Your task to perform on an android device: Find coffee shops on Maps Image 0: 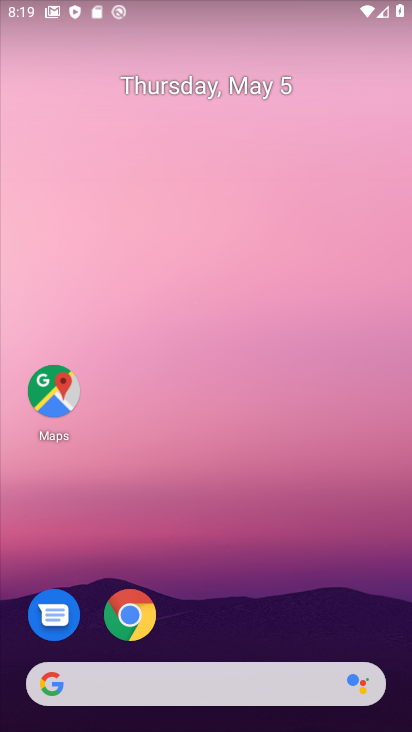
Step 0: click (61, 386)
Your task to perform on an android device: Find coffee shops on Maps Image 1: 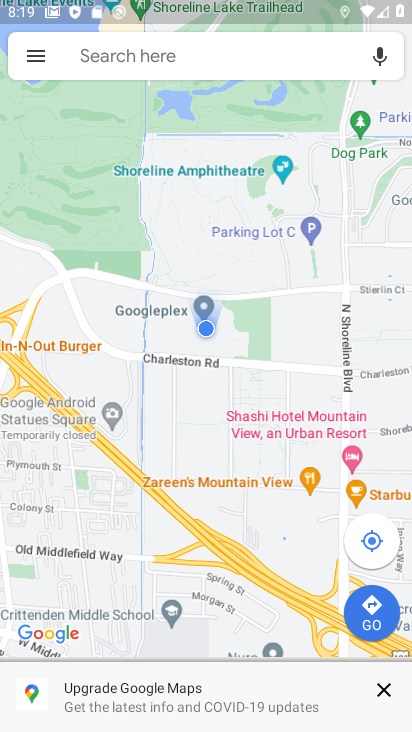
Step 1: click (170, 57)
Your task to perform on an android device: Find coffee shops on Maps Image 2: 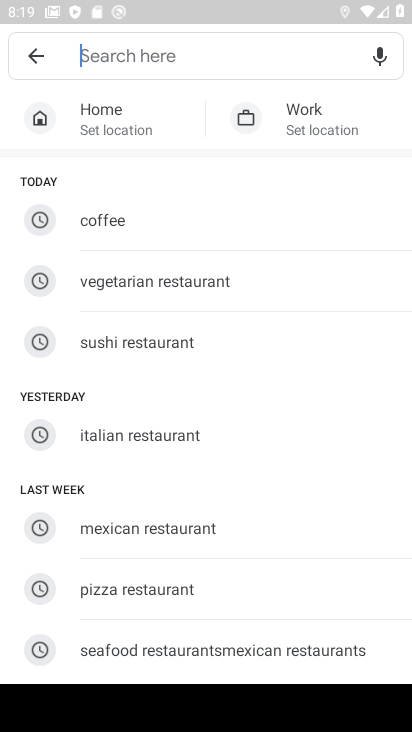
Step 2: type "coffee shops"
Your task to perform on an android device: Find coffee shops on Maps Image 3: 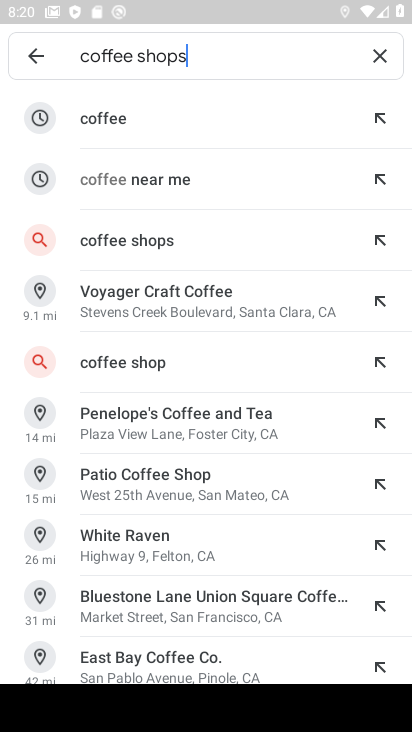
Step 3: click (201, 235)
Your task to perform on an android device: Find coffee shops on Maps Image 4: 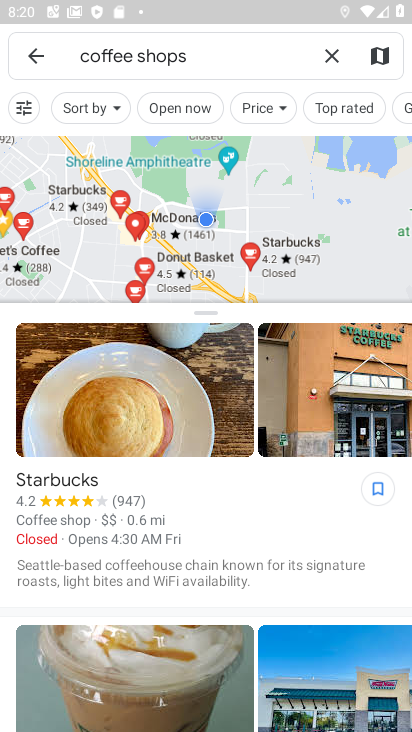
Step 4: task complete